Your task to perform on an android device: add a contact in the contacts app Image 0: 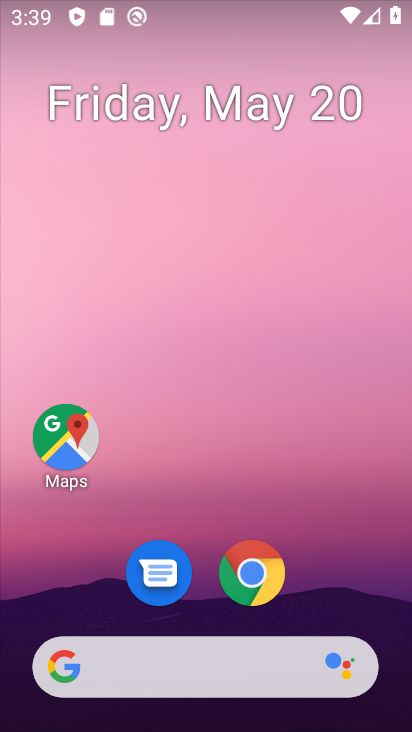
Step 0: drag from (344, 566) to (315, 148)
Your task to perform on an android device: add a contact in the contacts app Image 1: 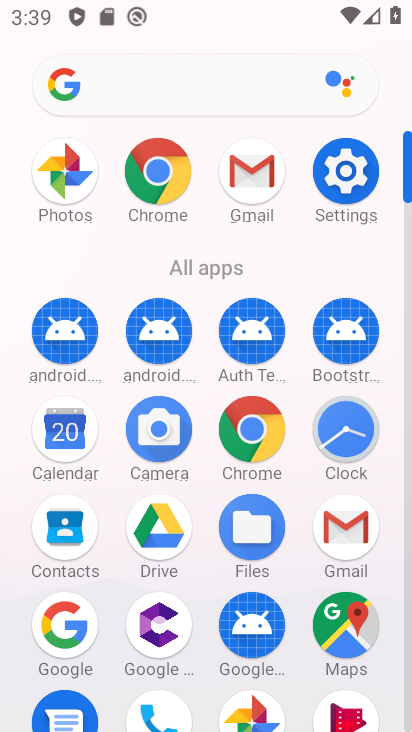
Step 1: click (63, 541)
Your task to perform on an android device: add a contact in the contacts app Image 2: 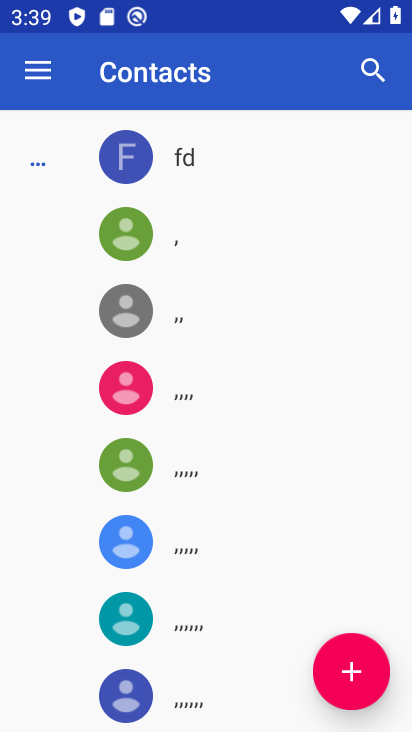
Step 2: press home button
Your task to perform on an android device: add a contact in the contacts app Image 3: 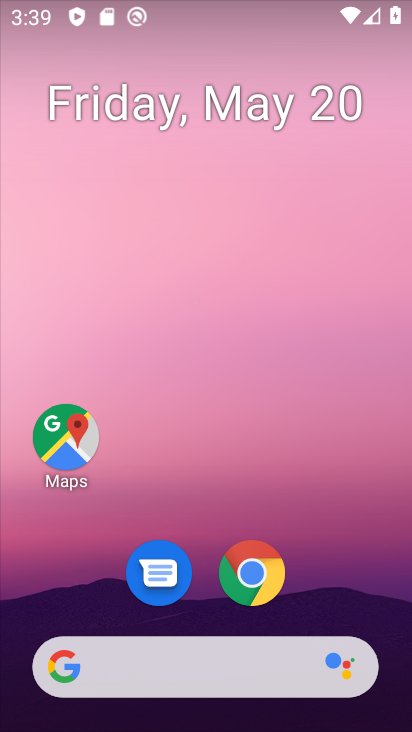
Step 3: drag from (339, 574) to (242, 209)
Your task to perform on an android device: add a contact in the contacts app Image 4: 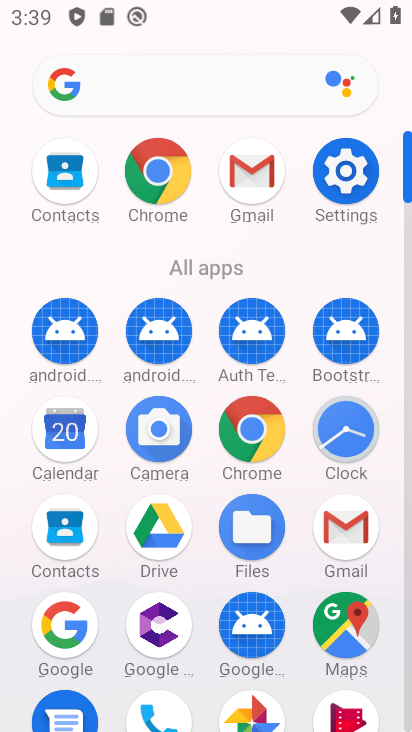
Step 4: click (71, 534)
Your task to perform on an android device: add a contact in the contacts app Image 5: 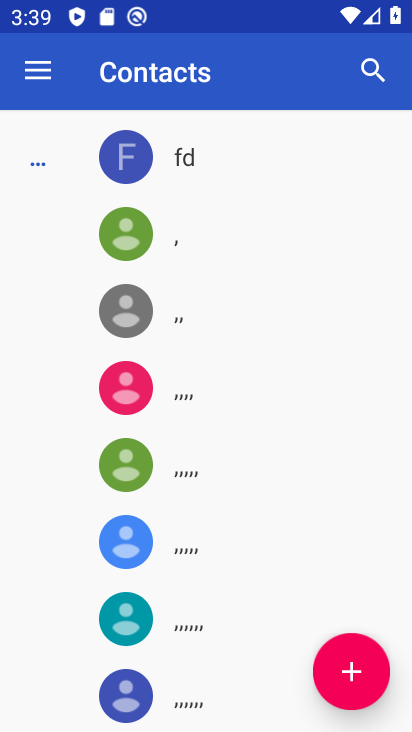
Step 5: click (348, 681)
Your task to perform on an android device: add a contact in the contacts app Image 6: 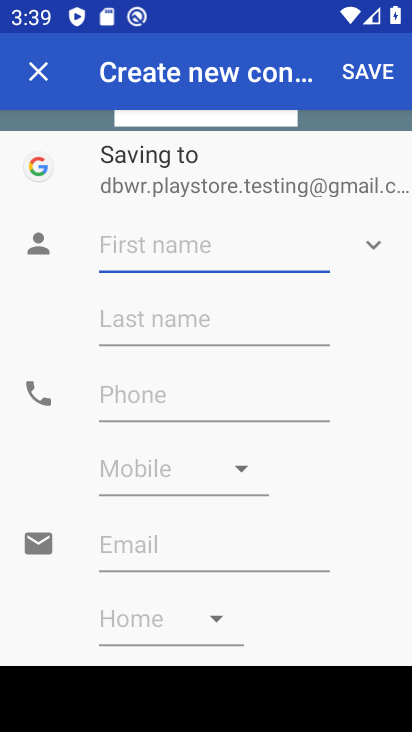
Step 6: click (175, 249)
Your task to perform on an android device: add a contact in the contacts app Image 7: 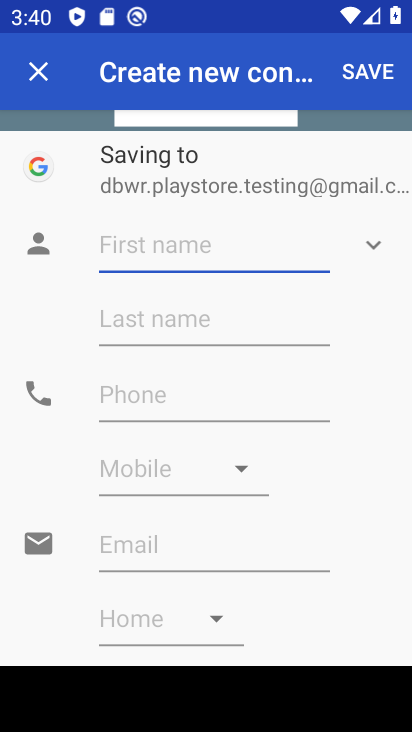
Step 7: type "asksaja"
Your task to perform on an android device: add a contact in the contacts app Image 8: 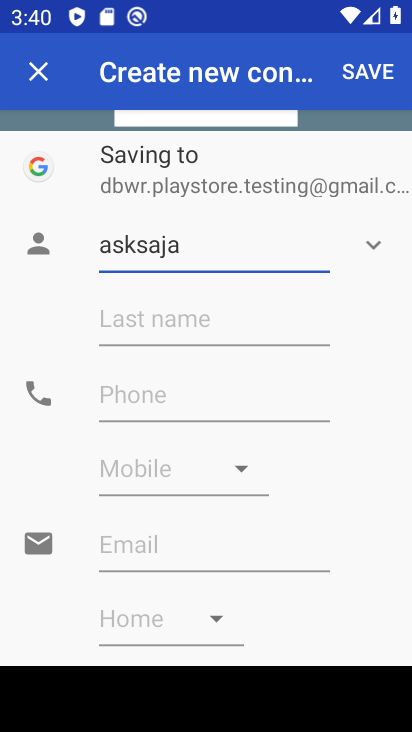
Step 8: click (206, 403)
Your task to perform on an android device: add a contact in the contacts app Image 9: 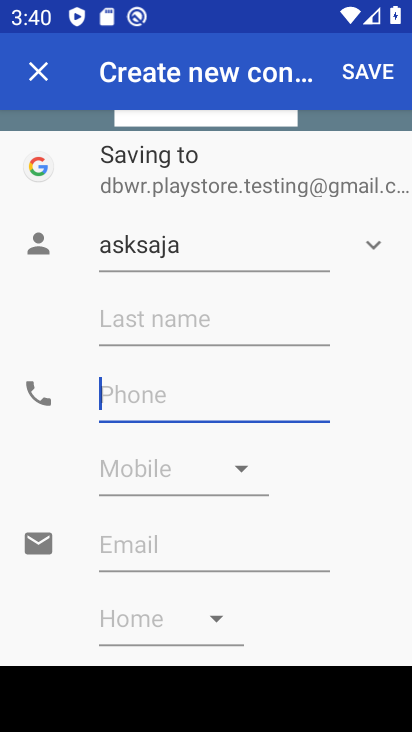
Step 9: type "923892849824"
Your task to perform on an android device: add a contact in the contacts app Image 10: 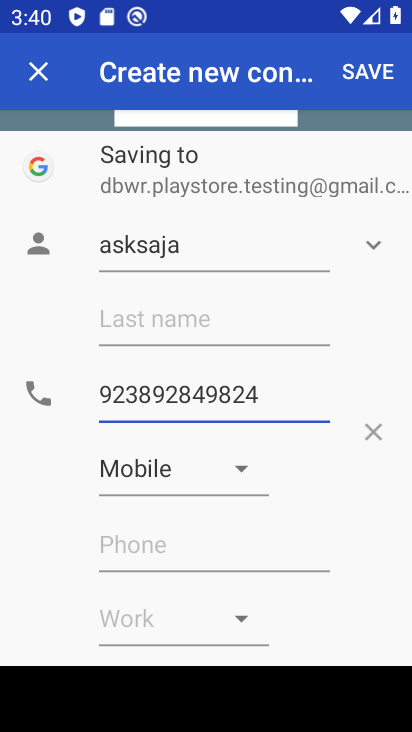
Step 10: click (391, 74)
Your task to perform on an android device: add a contact in the contacts app Image 11: 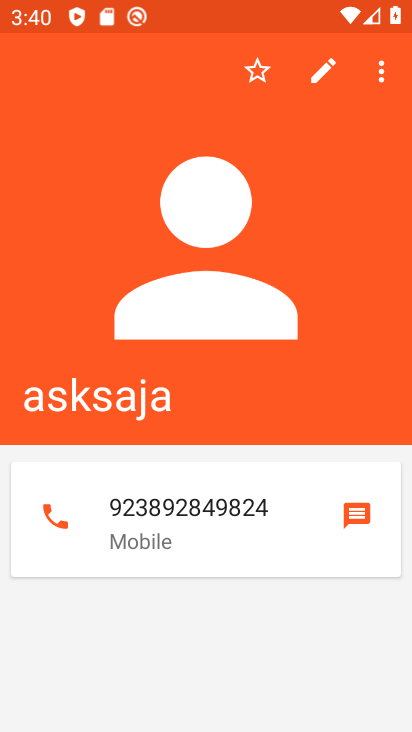
Step 11: task complete